Your task to perform on an android device: Show me the alarms in the clock app Image 0: 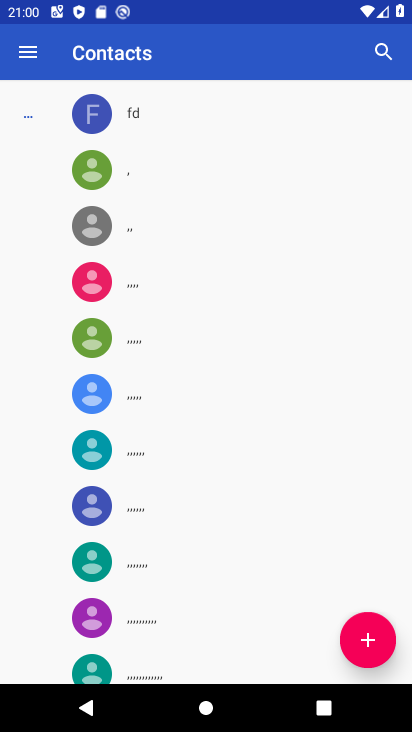
Step 0: press home button
Your task to perform on an android device: Show me the alarms in the clock app Image 1: 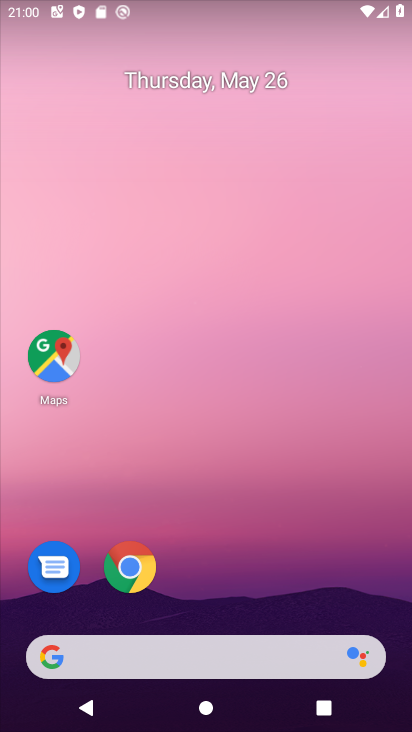
Step 1: drag from (218, 592) to (192, 412)
Your task to perform on an android device: Show me the alarms in the clock app Image 2: 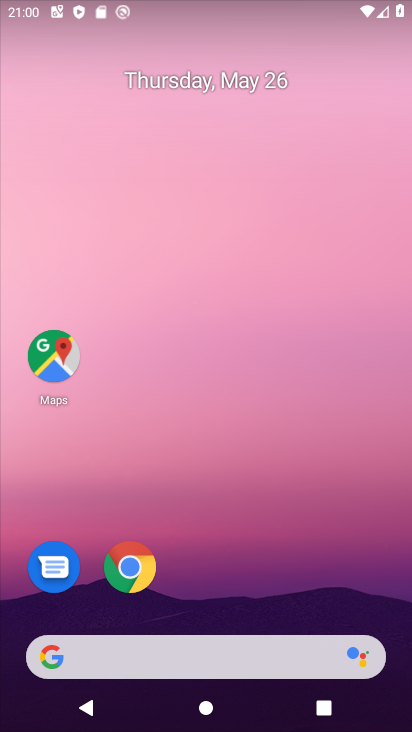
Step 2: drag from (276, 583) to (270, 140)
Your task to perform on an android device: Show me the alarms in the clock app Image 3: 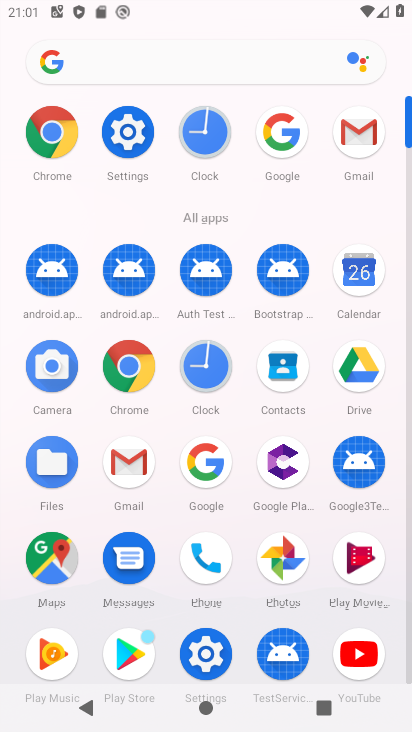
Step 3: click (195, 377)
Your task to perform on an android device: Show me the alarms in the clock app Image 4: 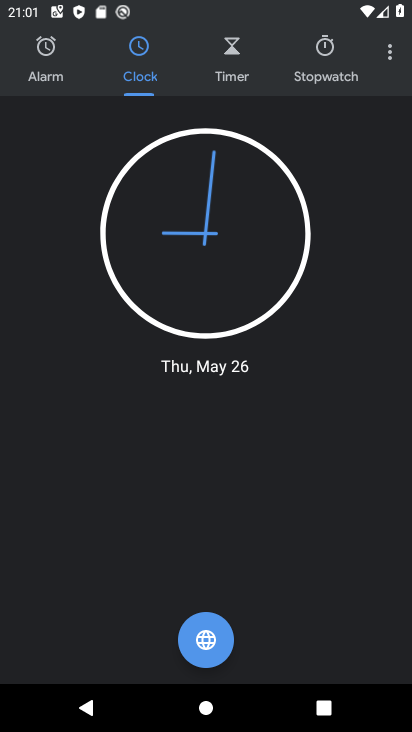
Step 4: click (38, 56)
Your task to perform on an android device: Show me the alarms in the clock app Image 5: 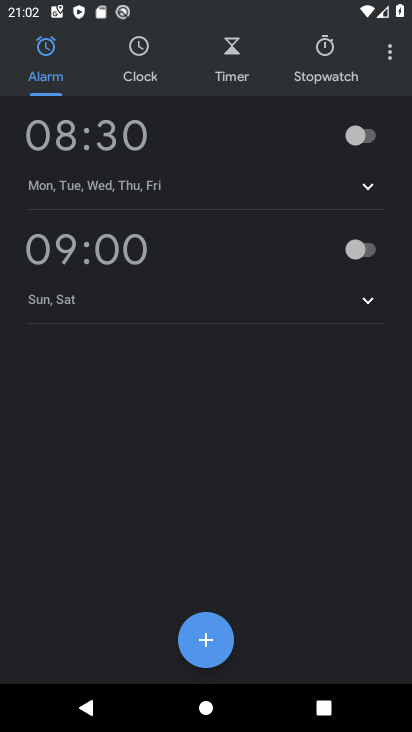
Step 5: task complete